Your task to perform on an android device: change the clock style Image 0: 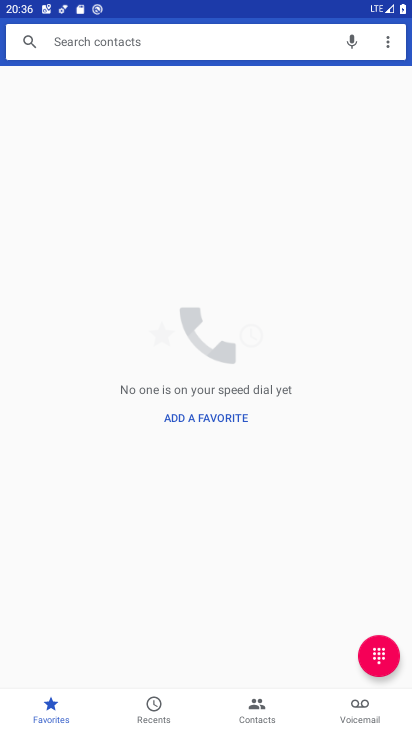
Step 0: press home button
Your task to perform on an android device: change the clock style Image 1: 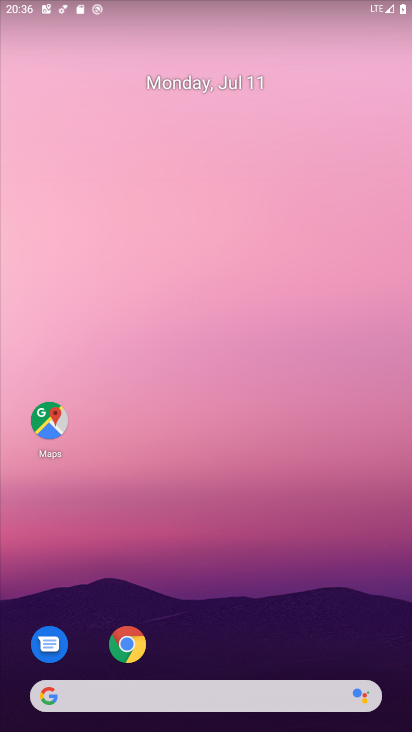
Step 1: drag from (228, 597) to (223, 126)
Your task to perform on an android device: change the clock style Image 2: 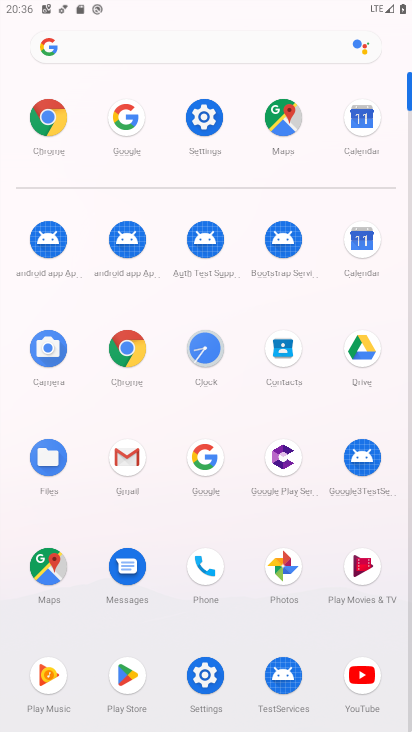
Step 2: click (202, 337)
Your task to perform on an android device: change the clock style Image 3: 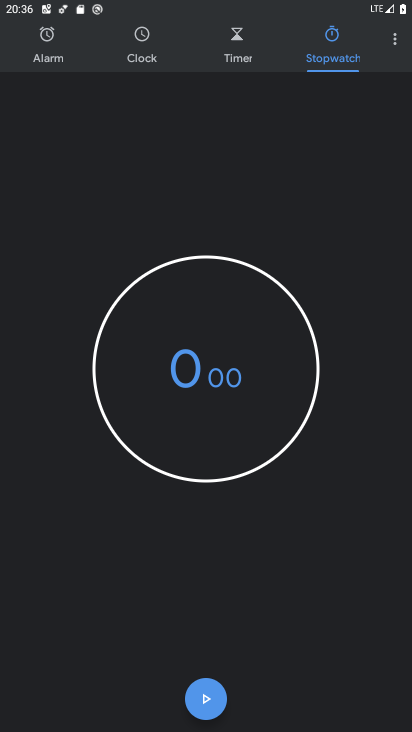
Step 3: click (388, 44)
Your task to perform on an android device: change the clock style Image 4: 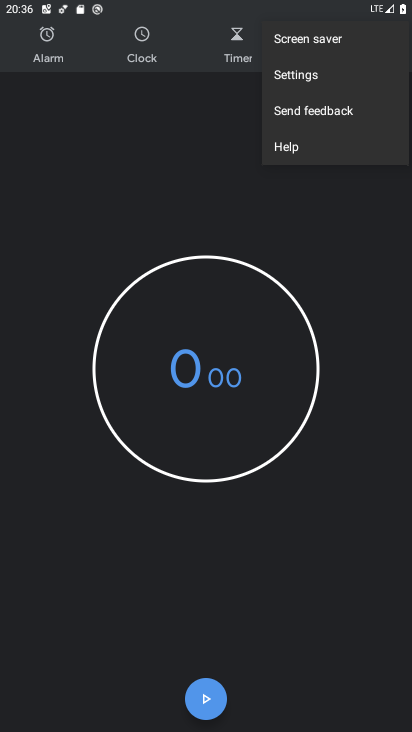
Step 4: click (314, 84)
Your task to perform on an android device: change the clock style Image 5: 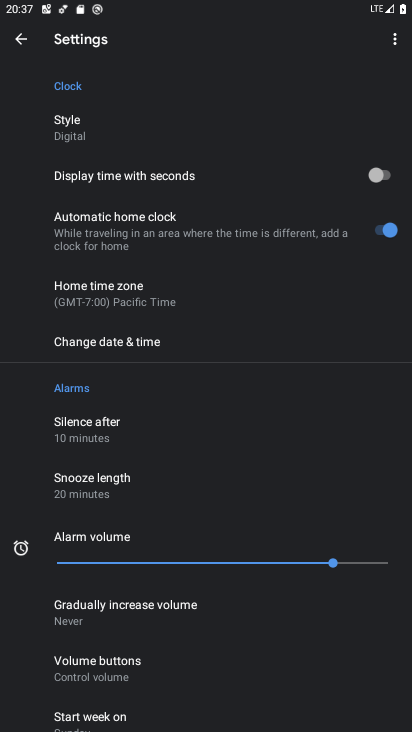
Step 5: click (81, 122)
Your task to perform on an android device: change the clock style Image 6: 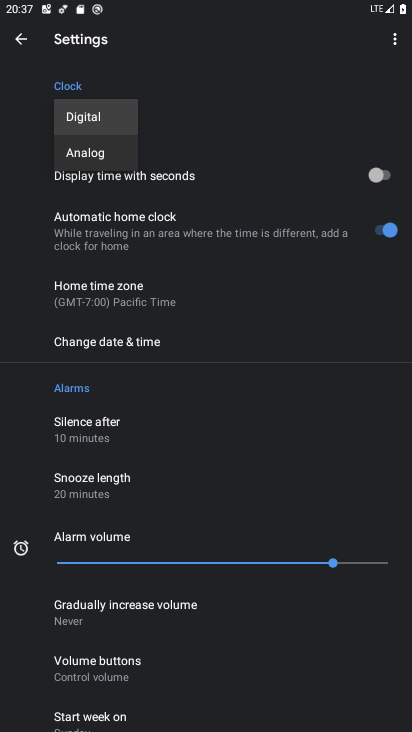
Step 6: click (98, 152)
Your task to perform on an android device: change the clock style Image 7: 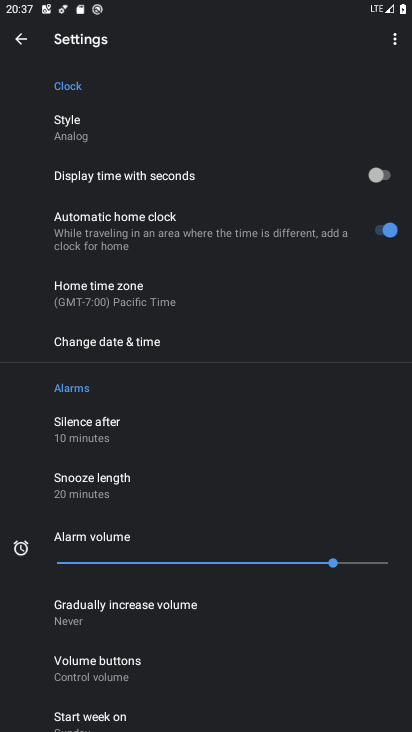
Step 7: task complete